Your task to perform on an android device: What is the recent news? Image 0: 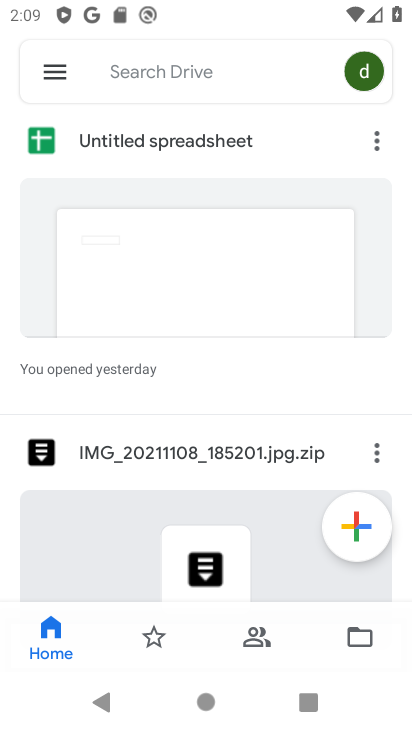
Step 0: press home button
Your task to perform on an android device: What is the recent news? Image 1: 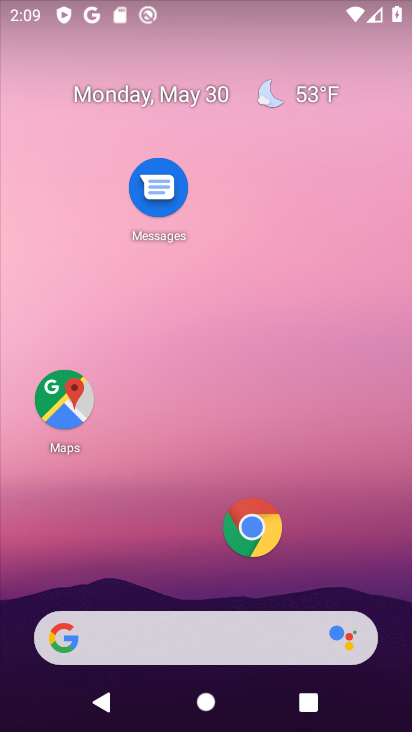
Step 1: drag from (200, 588) to (340, 184)
Your task to perform on an android device: What is the recent news? Image 2: 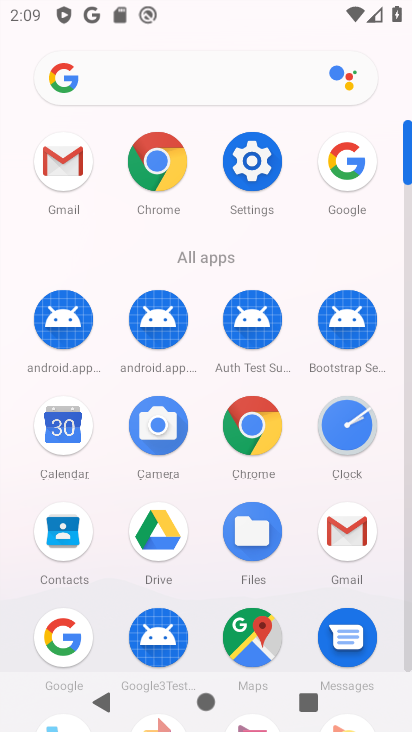
Step 2: click (81, 635)
Your task to perform on an android device: What is the recent news? Image 3: 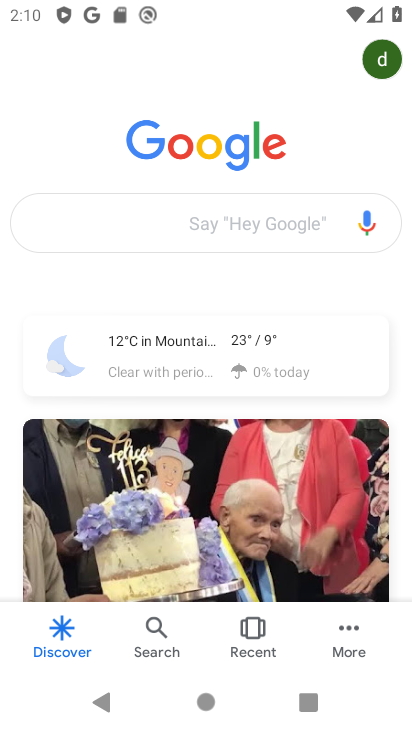
Step 3: task complete